Your task to perform on an android device: turn on notifications settings in the gmail app Image 0: 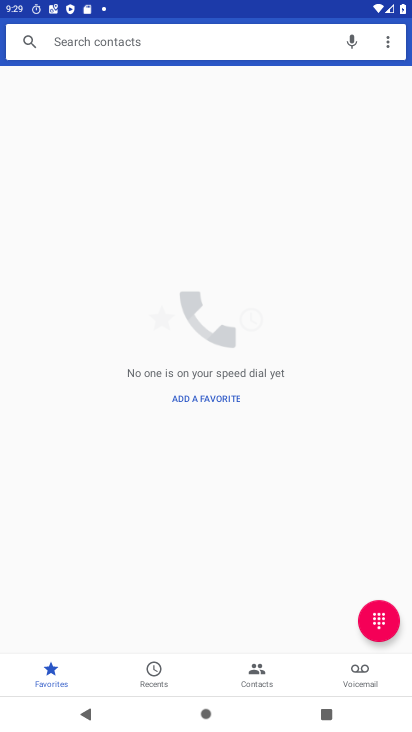
Step 0: press home button
Your task to perform on an android device: turn on notifications settings in the gmail app Image 1: 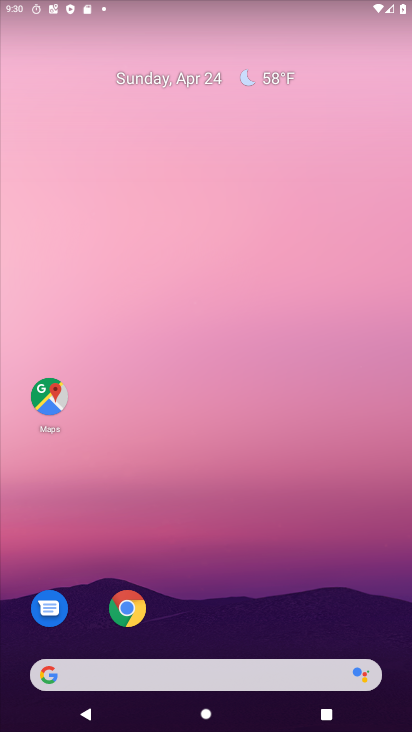
Step 1: drag from (353, 600) to (353, 103)
Your task to perform on an android device: turn on notifications settings in the gmail app Image 2: 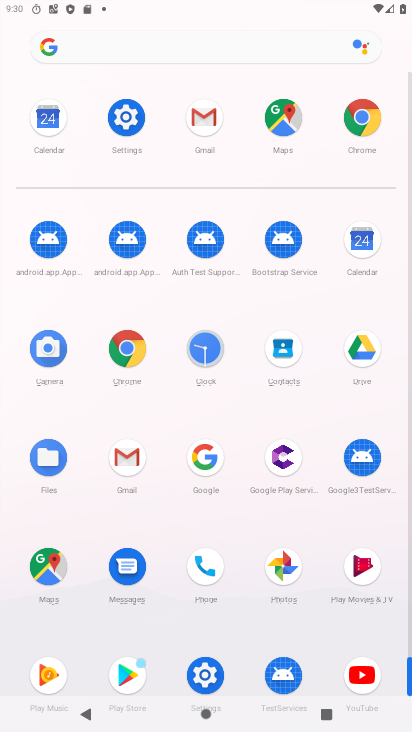
Step 2: click (205, 123)
Your task to perform on an android device: turn on notifications settings in the gmail app Image 3: 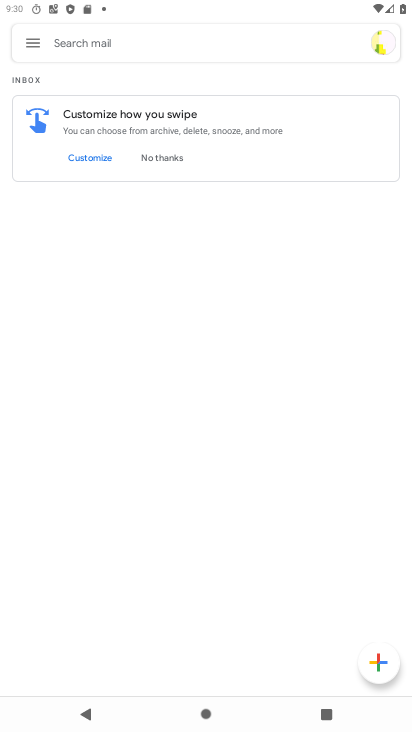
Step 3: click (27, 42)
Your task to perform on an android device: turn on notifications settings in the gmail app Image 4: 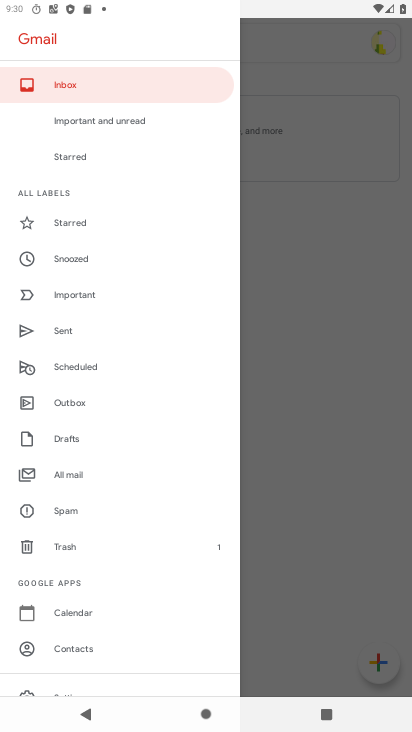
Step 4: drag from (176, 595) to (184, 379)
Your task to perform on an android device: turn on notifications settings in the gmail app Image 5: 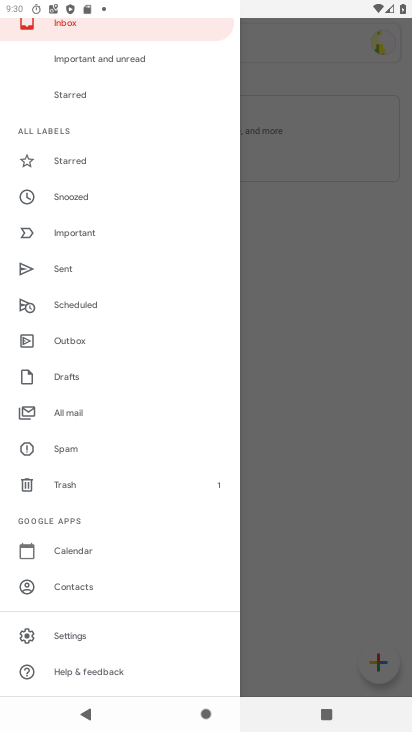
Step 5: click (77, 638)
Your task to perform on an android device: turn on notifications settings in the gmail app Image 6: 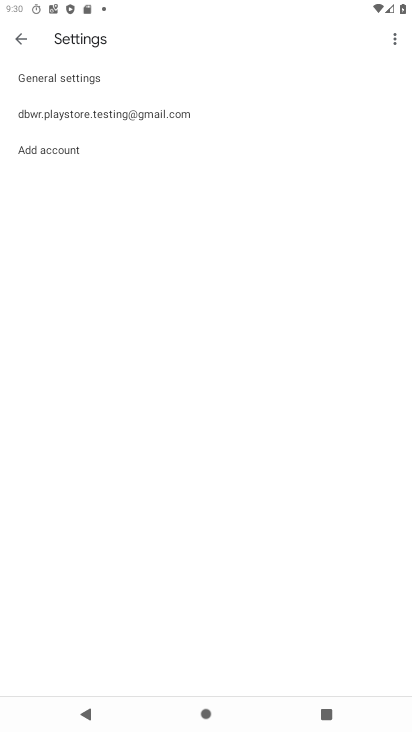
Step 6: click (181, 119)
Your task to perform on an android device: turn on notifications settings in the gmail app Image 7: 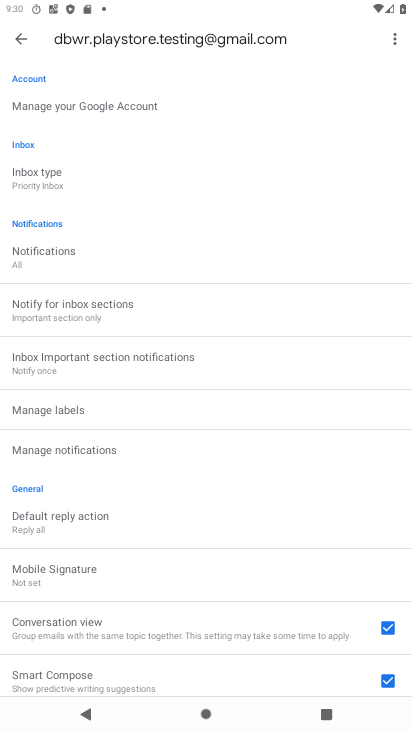
Step 7: drag from (290, 533) to (283, 361)
Your task to perform on an android device: turn on notifications settings in the gmail app Image 8: 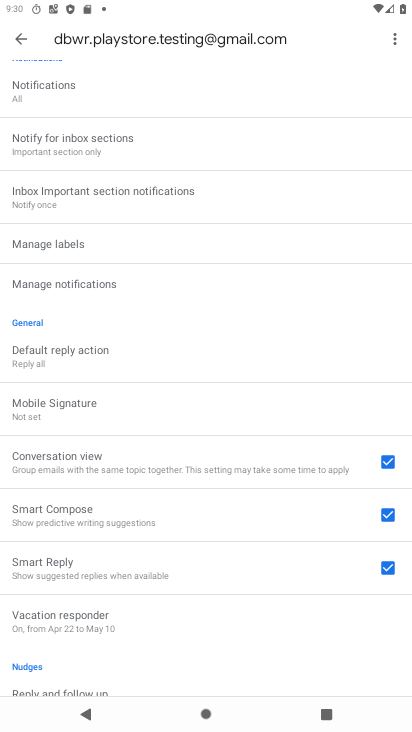
Step 8: drag from (311, 600) to (312, 363)
Your task to perform on an android device: turn on notifications settings in the gmail app Image 9: 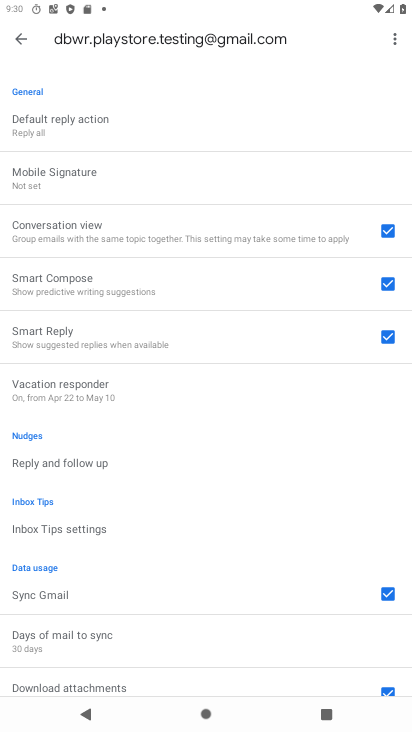
Step 9: drag from (300, 594) to (277, 423)
Your task to perform on an android device: turn on notifications settings in the gmail app Image 10: 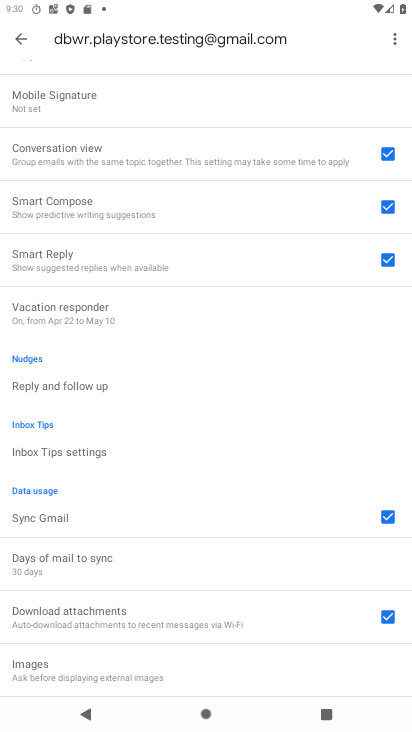
Step 10: drag from (266, 627) to (267, 407)
Your task to perform on an android device: turn on notifications settings in the gmail app Image 11: 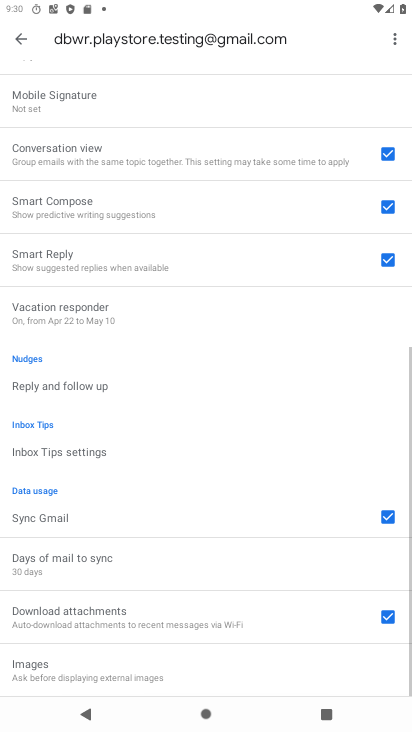
Step 11: drag from (263, 267) to (262, 435)
Your task to perform on an android device: turn on notifications settings in the gmail app Image 12: 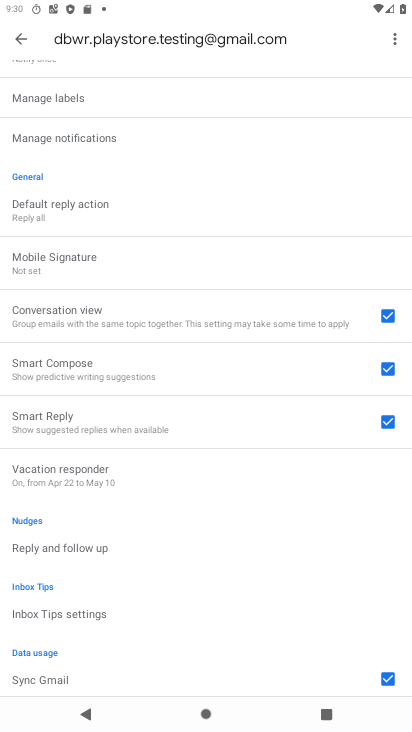
Step 12: drag from (270, 239) to (276, 409)
Your task to perform on an android device: turn on notifications settings in the gmail app Image 13: 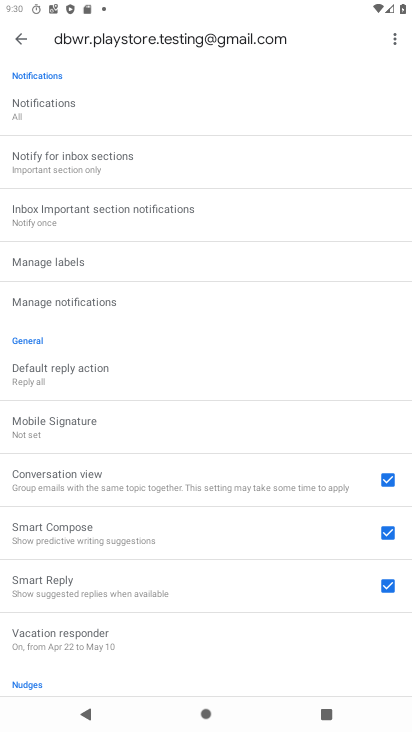
Step 13: drag from (261, 230) to (257, 451)
Your task to perform on an android device: turn on notifications settings in the gmail app Image 14: 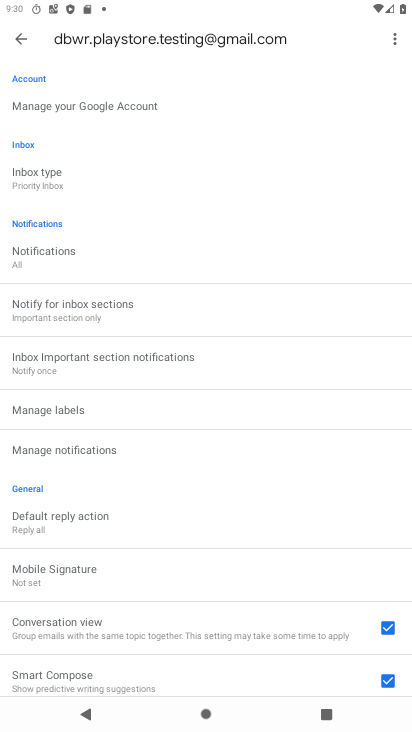
Step 14: drag from (257, 205) to (262, 390)
Your task to perform on an android device: turn on notifications settings in the gmail app Image 15: 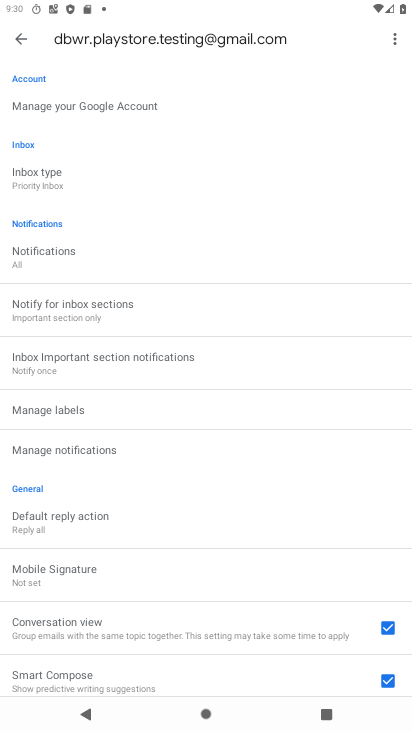
Step 15: click (158, 455)
Your task to perform on an android device: turn on notifications settings in the gmail app Image 16: 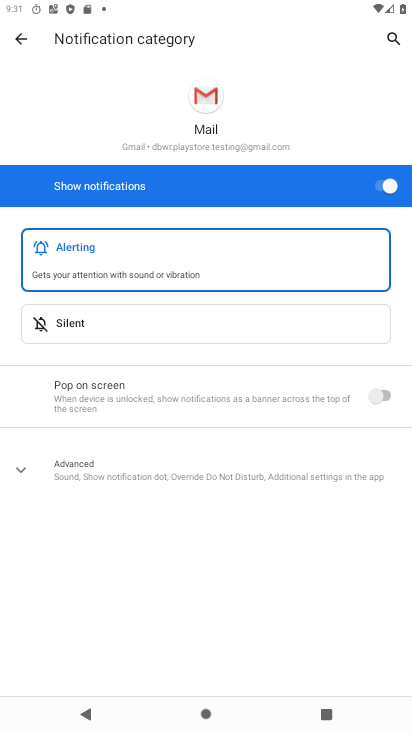
Step 16: task complete